Your task to perform on an android device: check android version Image 0: 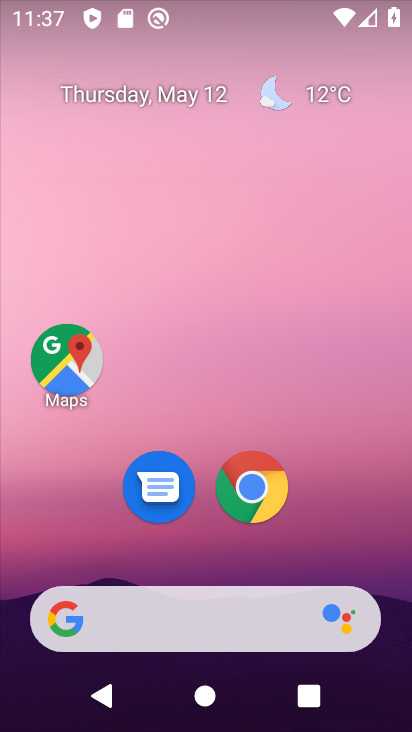
Step 0: drag from (250, 533) to (330, 82)
Your task to perform on an android device: check android version Image 1: 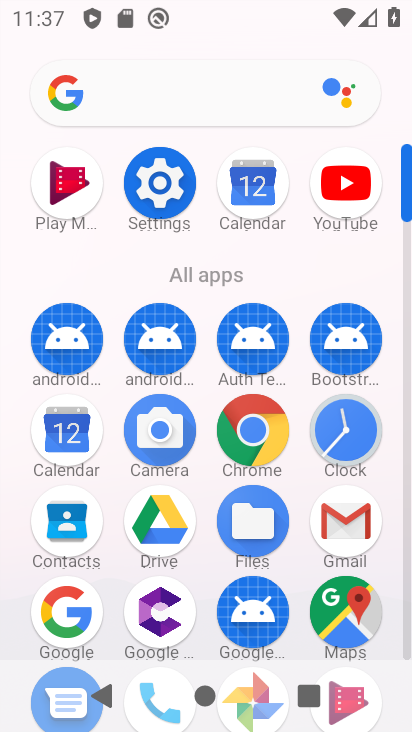
Step 1: click (165, 185)
Your task to perform on an android device: check android version Image 2: 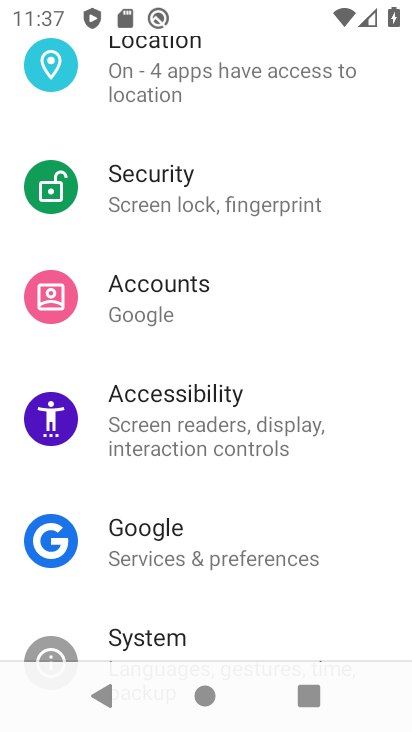
Step 2: drag from (213, 185) to (130, 611)
Your task to perform on an android device: check android version Image 3: 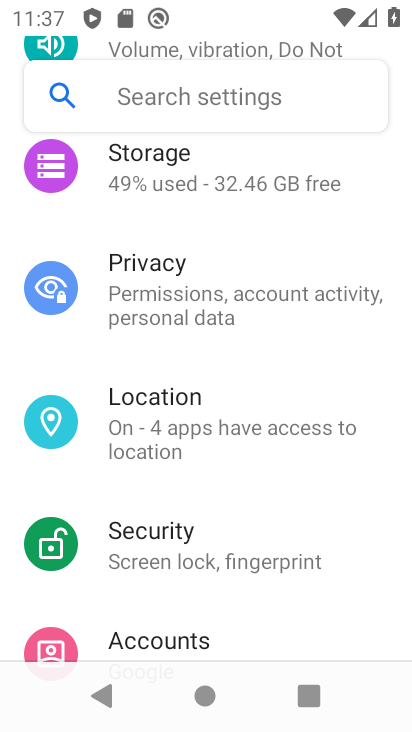
Step 3: drag from (189, 222) to (139, 699)
Your task to perform on an android device: check android version Image 4: 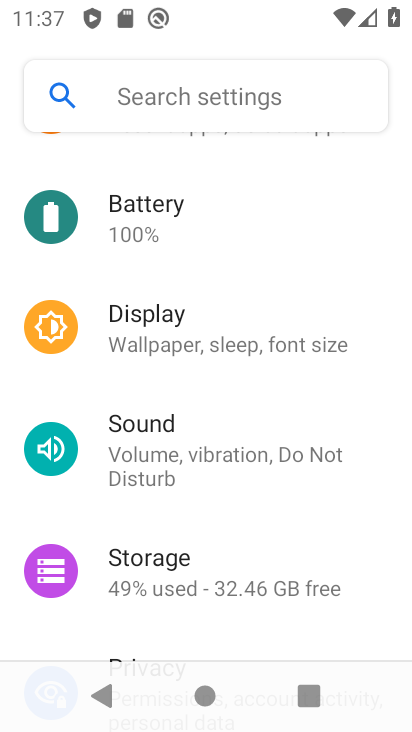
Step 4: drag from (196, 230) to (283, 81)
Your task to perform on an android device: check android version Image 5: 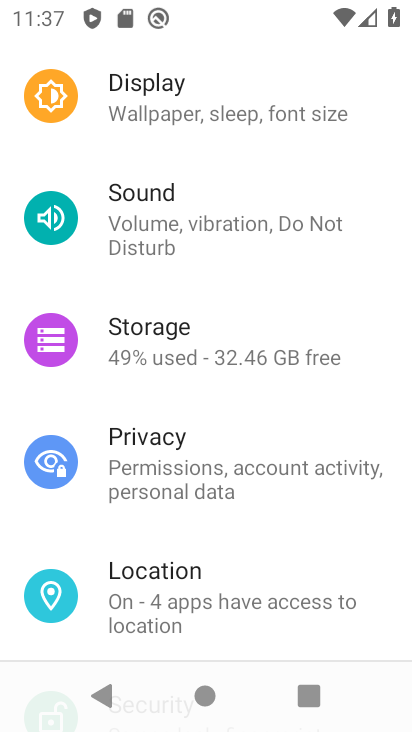
Step 5: drag from (202, 576) to (338, 10)
Your task to perform on an android device: check android version Image 6: 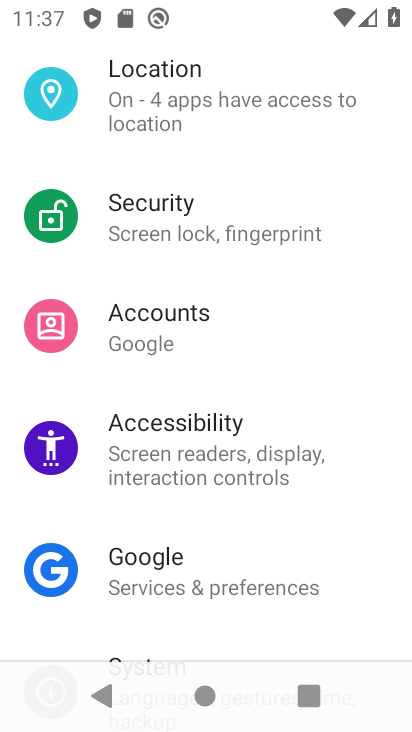
Step 6: drag from (189, 570) to (268, 29)
Your task to perform on an android device: check android version Image 7: 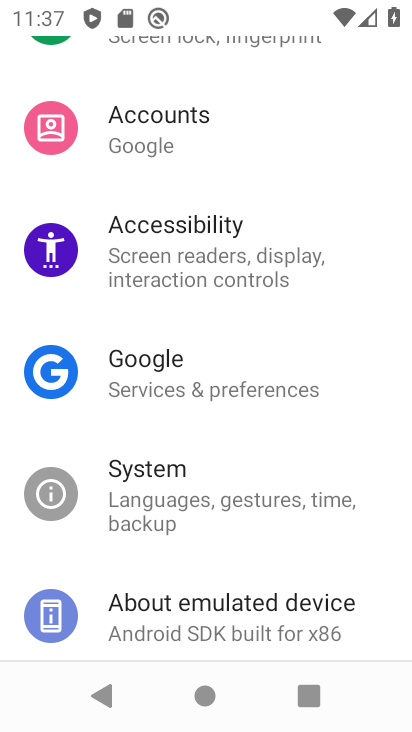
Step 7: click (191, 602)
Your task to perform on an android device: check android version Image 8: 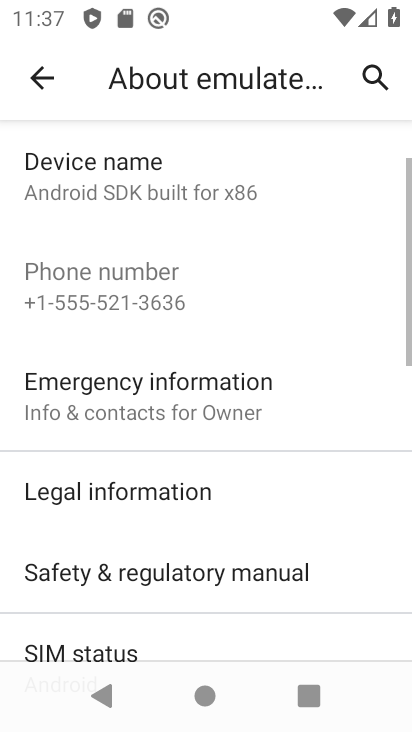
Step 8: drag from (192, 599) to (256, 116)
Your task to perform on an android device: check android version Image 9: 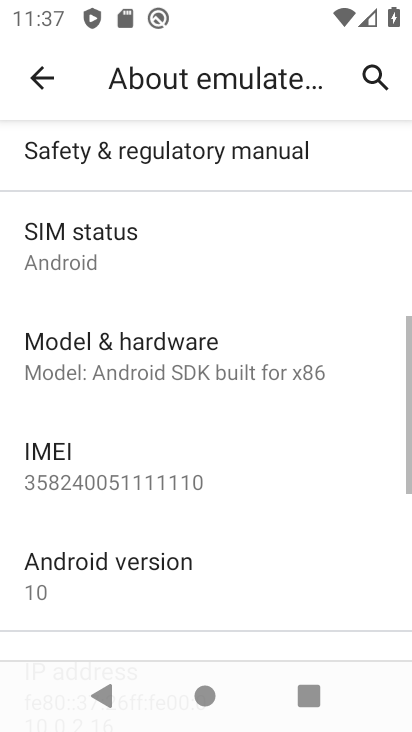
Step 9: click (126, 592)
Your task to perform on an android device: check android version Image 10: 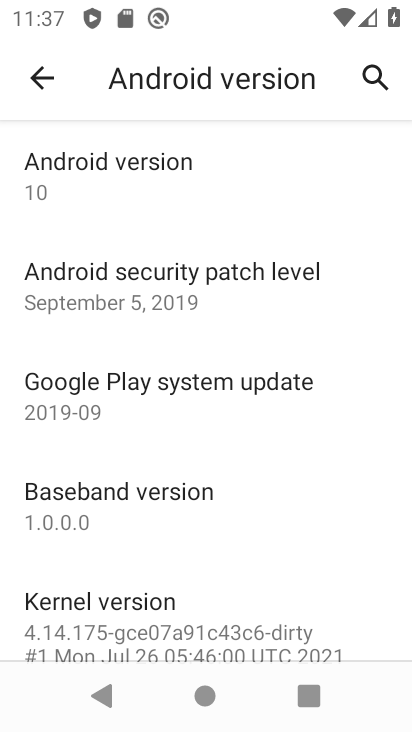
Step 10: task complete